Your task to perform on an android device: Is it going to rain tomorrow? Image 0: 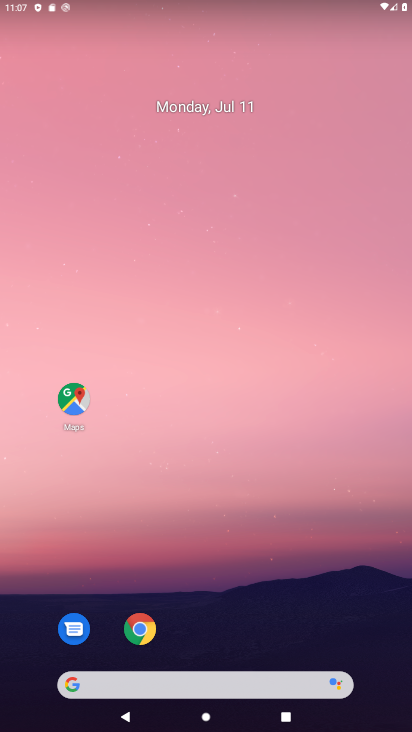
Step 0: click (131, 622)
Your task to perform on an android device: Is it going to rain tomorrow? Image 1: 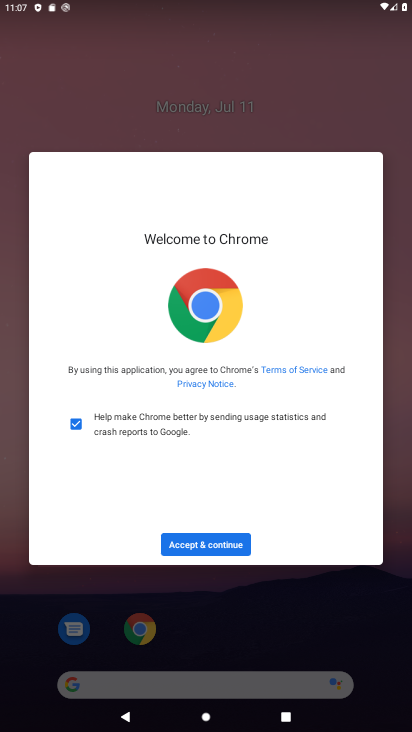
Step 1: click (223, 545)
Your task to perform on an android device: Is it going to rain tomorrow? Image 2: 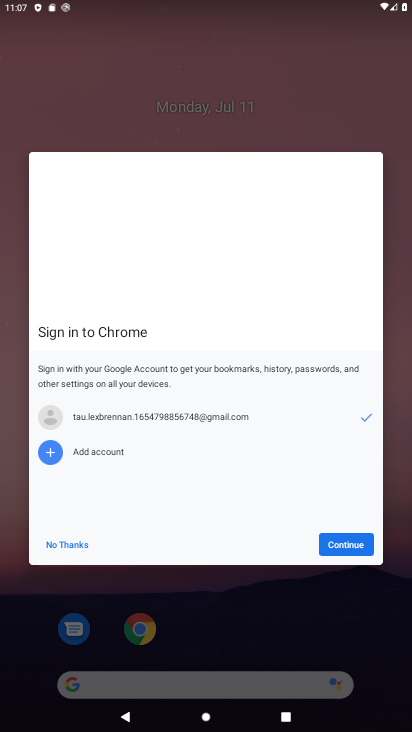
Step 2: click (335, 540)
Your task to perform on an android device: Is it going to rain tomorrow? Image 3: 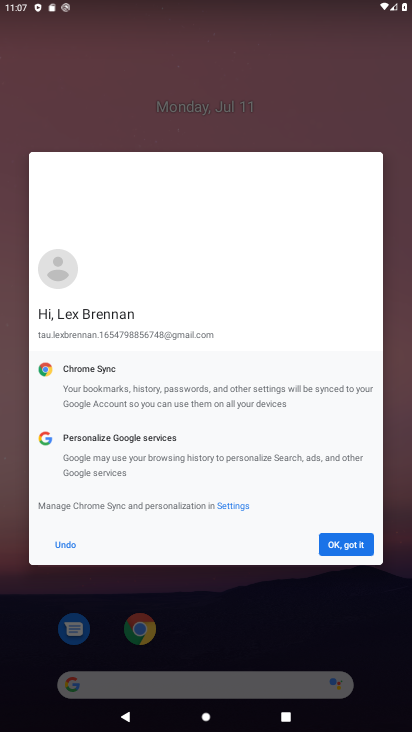
Step 3: click (335, 540)
Your task to perform on an android device: Is it going to rain tomorrow? Image 4: 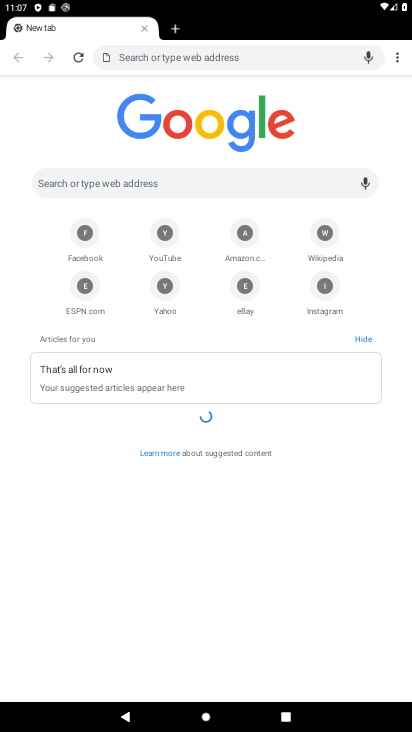
Step 4: click (150, 57)
Your task to perform on an android device: Is it going to rain tomorrow? Image 5: 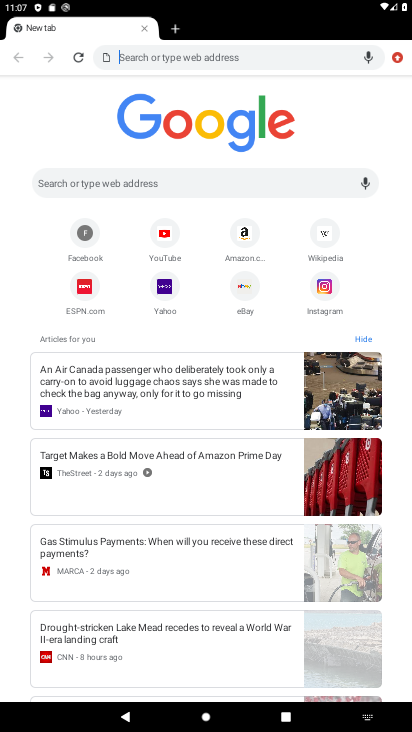
Step 5: click (190, 56)
Your task to perform on an android device: Is it going to rain tomorrow? Image 6: 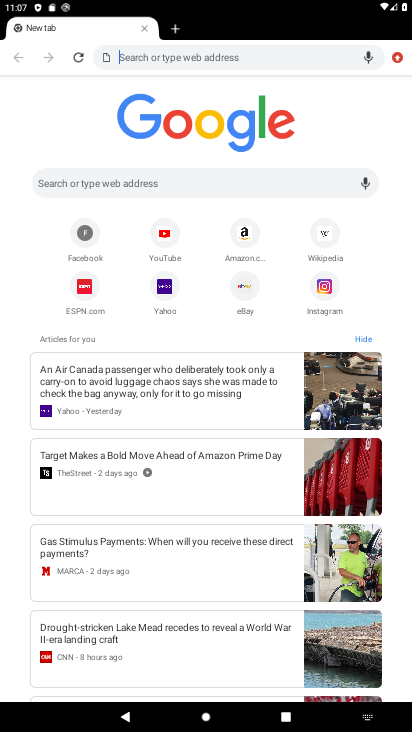
Step 6: click (190, 56)
Your task to perform on an android device: Is it going to rain tomorrow? Image 7: 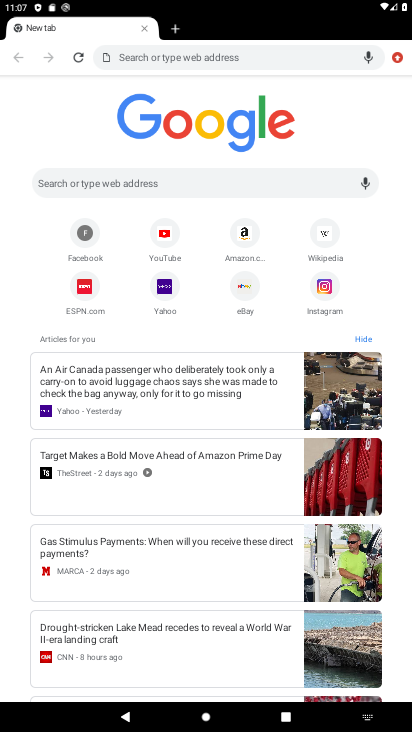
Step 7: click (190, 56)
Your task to perform on an android device: Is it going to rain tomorrow? Image 8: 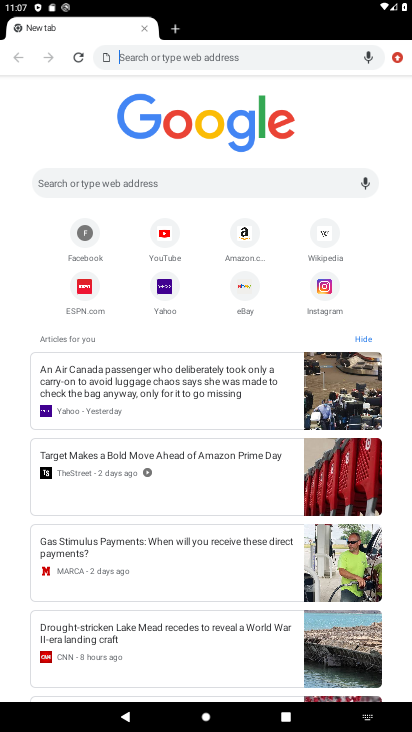
Step 8: click (190, 56)
Your task to perform on an android device: Is it going to rain tomorrow? Image 9: 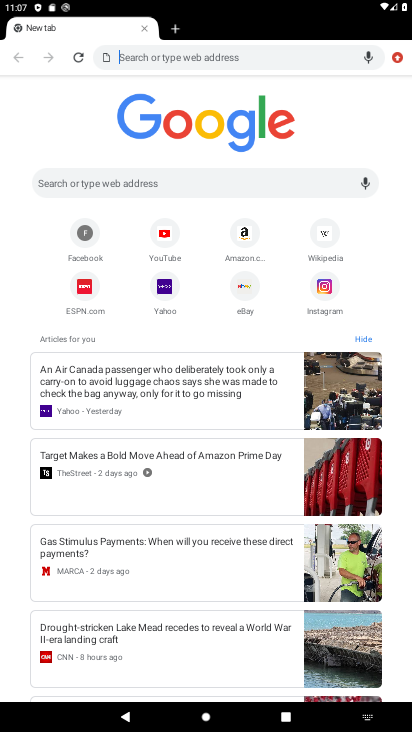
Step 9: click (190, 56)
Your task to perform on an android device: Is it going to rain tomorrow? Image 10: 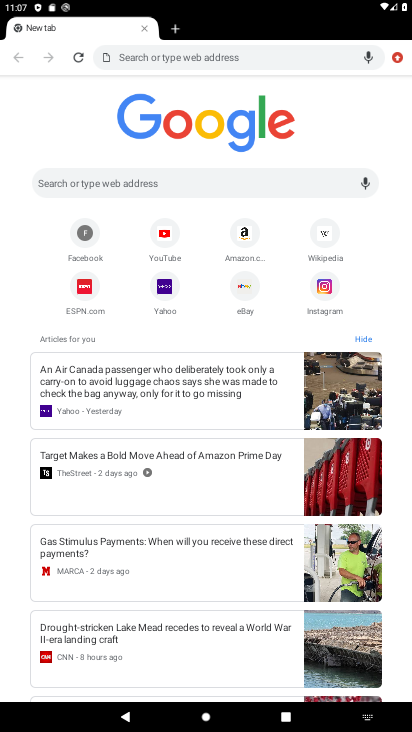
Step 10: click (190, 56)
Your task to perform on an android device: Is it going to rain tomorrow? Image 11: 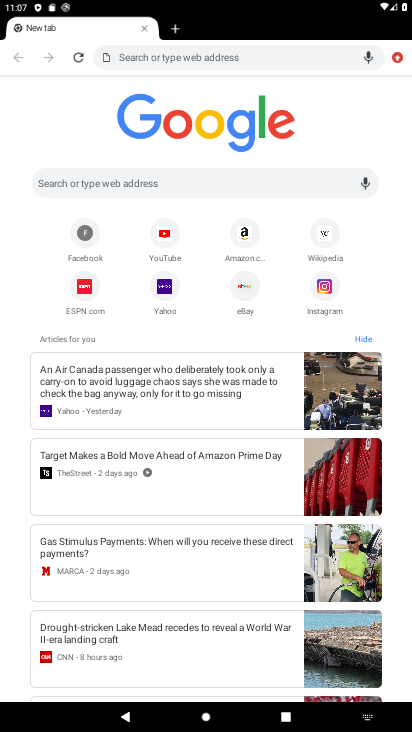
Step 11: click (190, 56)
Your task to perform on an android device: Is it going to rain tomorrow? Image 12: 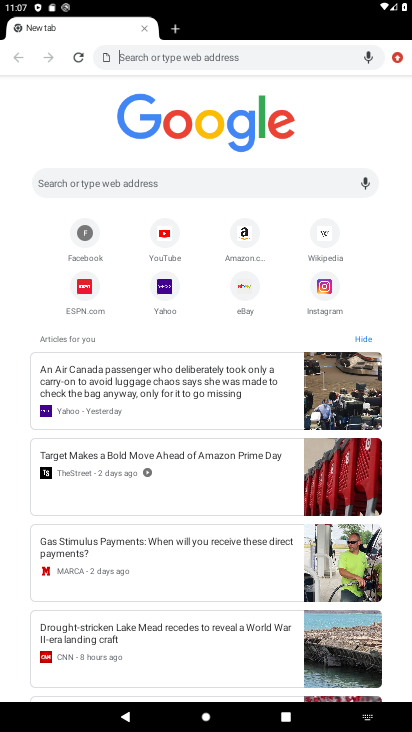
Step 12: click (190, 56)
Your task to perform on an android device: Is it going to rain tomorrow? Image 13: 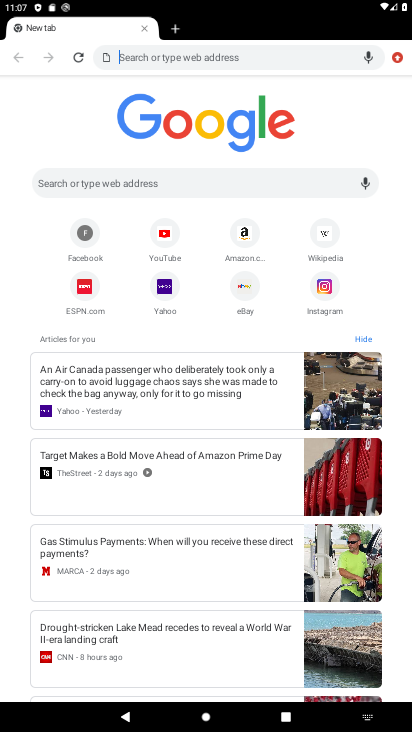
Step 13: click (190, 56)
Your task to perform on an android device: Is it going to rain tomorrow? Image 14: 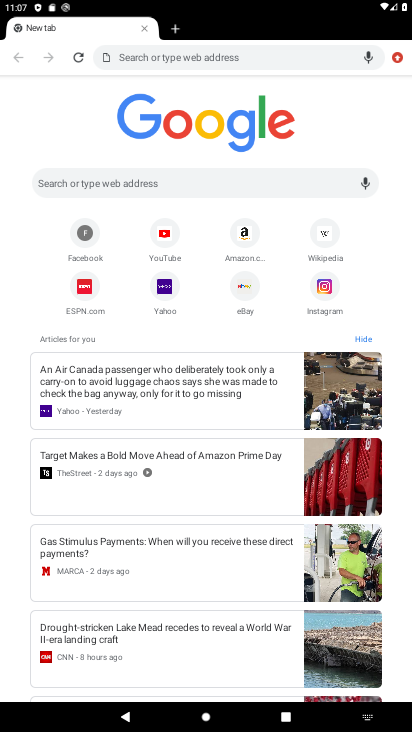
Step 14: type "Is it going to rain tomorrow?"
Your task to perform on an android device: Is it going to rain tomorrow? Image 15: 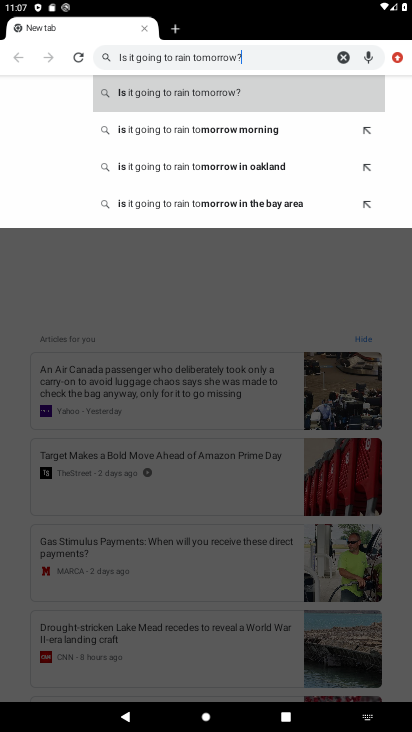
Step 15: click (213, 89)
Your task to perform on an android device: Is it going to rain tomorrow? Image 16: 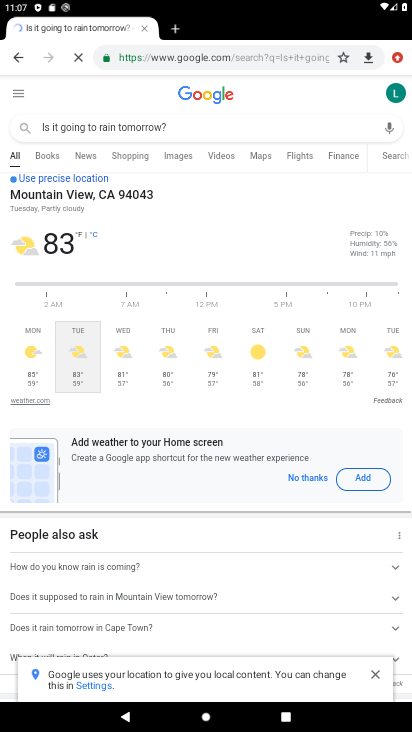
Step 16: task complete